Your task to perform on an android device: Go to Wikipedia Image 0: 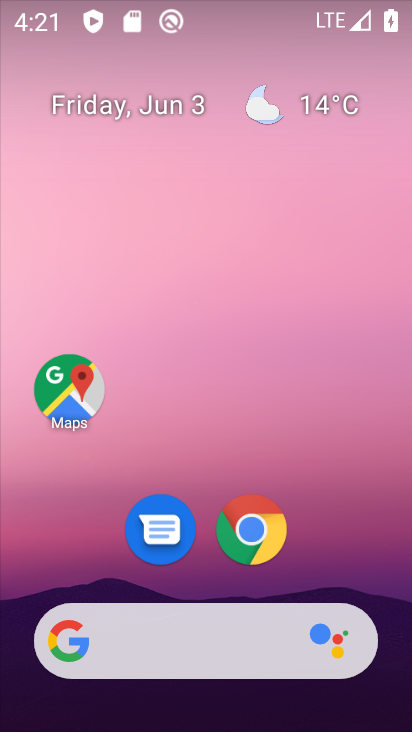
Step 0: click (256, 516)
Your task to perform on an android device: Go to Wikipedia Image 1: 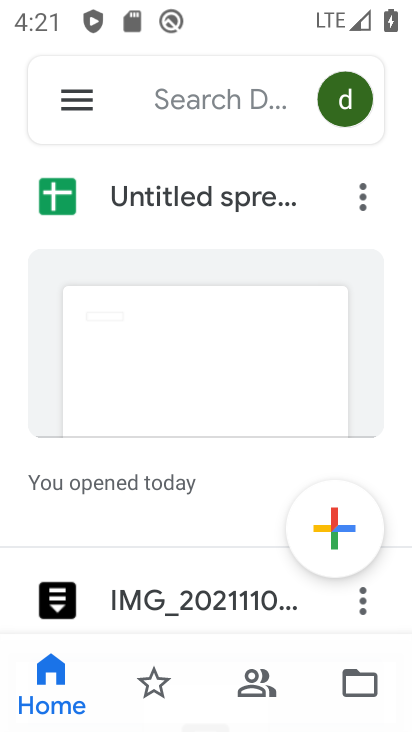
Step 1: press home button
Your task to perform on an android device: Go to Wikipedia Image 2: 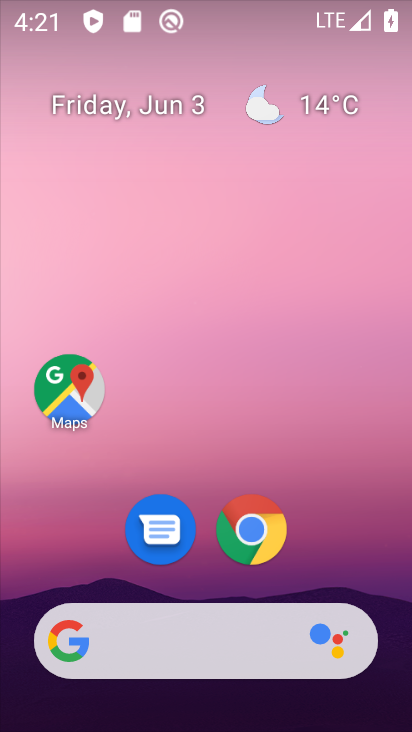
Step 2: click (251, 517)
Your task to perform on an android device: Go to Wikipedia Image 3: 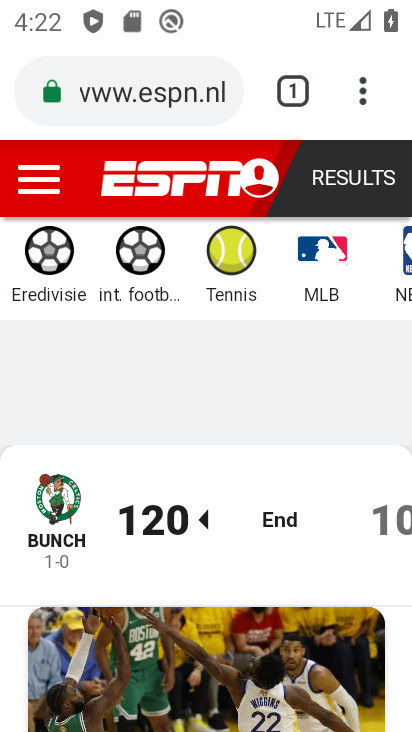
Step 3: click (283, 97)
Your task to perform on an android device: Go to Wikipedia Image 4: 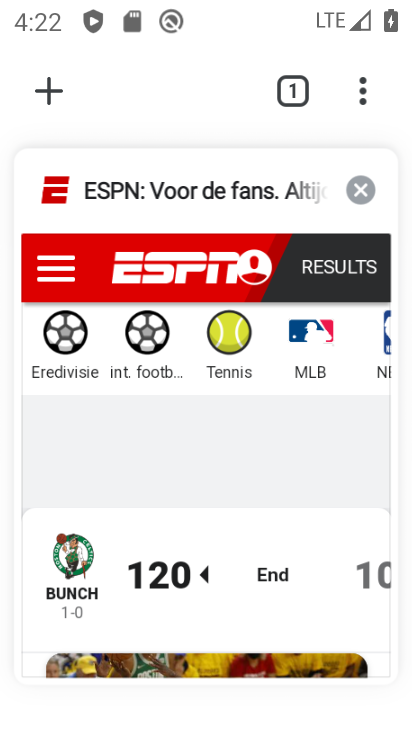
Step 4: click (47, 95)
Your task to perform on an android device: Go to Wikipedia Image 5: 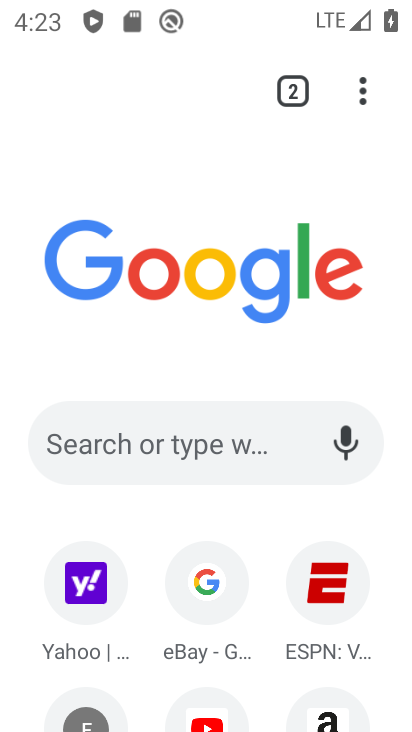
Step 5: drag from (266, 654) to (297, 203)
Your task to perform on an android device: Go to Wikipedia Image 6: 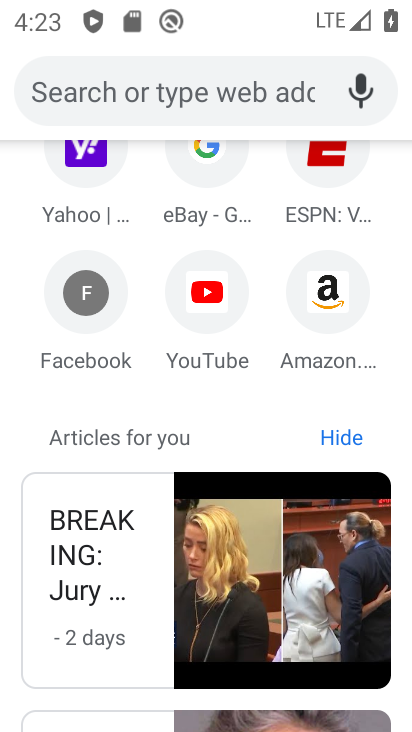
Step 6: click (176, 97)
Your task to perform on an android device: Go to Wikipedia Image 7: 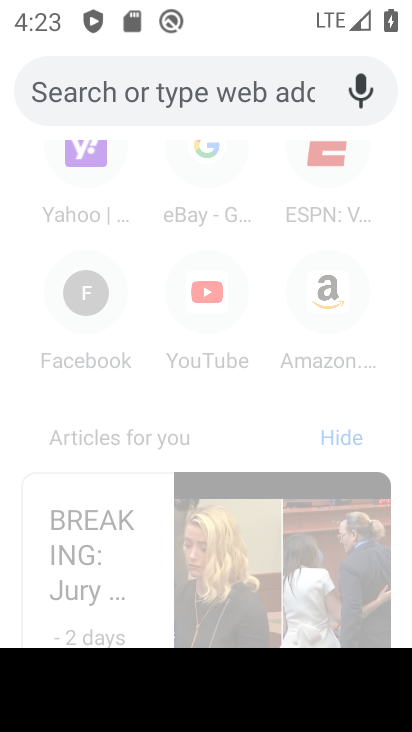
Step 7: type "wikipedia"
Your task to perform on an android device: Go to Wikipedia Image 8: 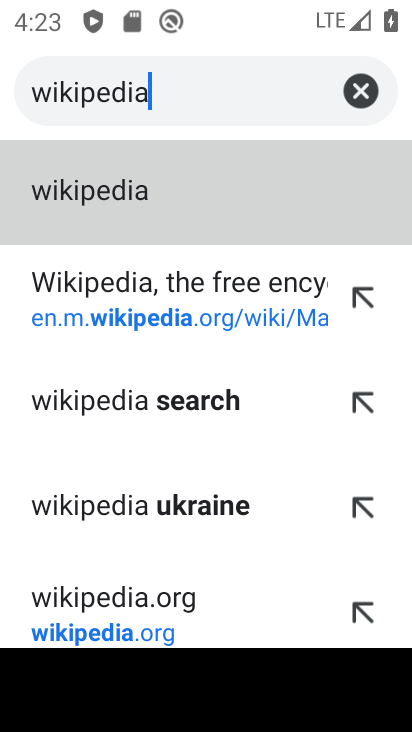
Step 8: click (216, 301)
Your task to perform on an android device: Go to Wikipedia Image 9: 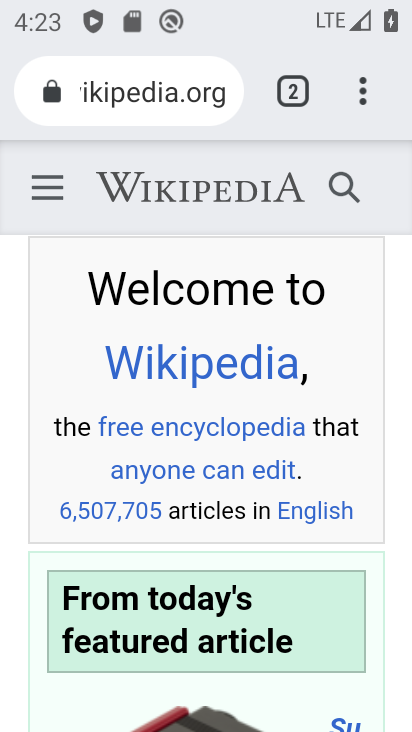
Step 9: task complete